Your task to perform on an android device: turn on bluetooth scan Image 0: 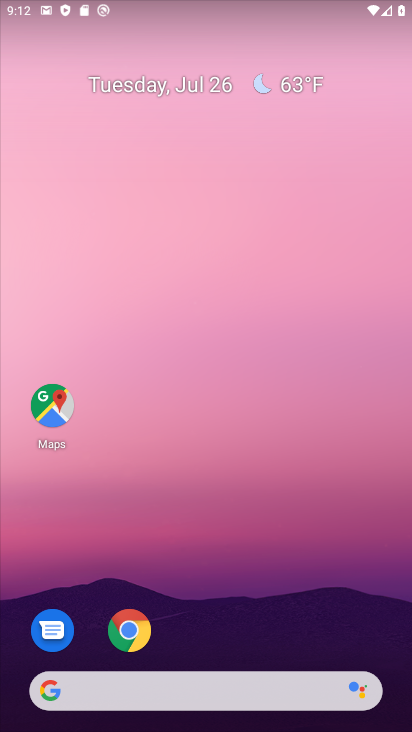
Step 0: drag from (211, 643) to (240, 32)
Your task to perform on an android device: turn on bluetooth scan Image 1: 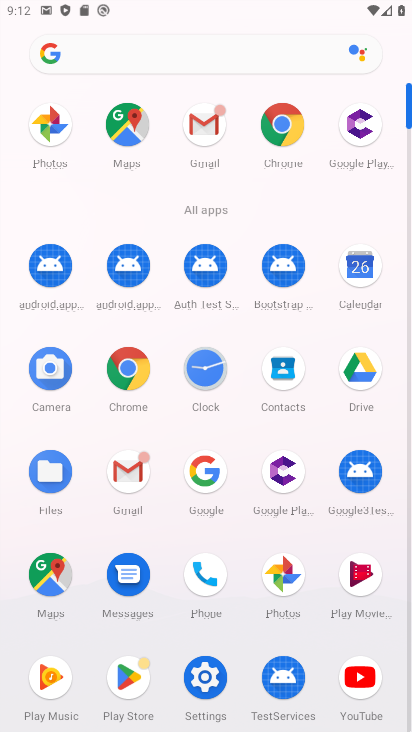
Step 1: click (202, 673)
Your task to perform on an android device: turn on bluetooth scan Image 2: 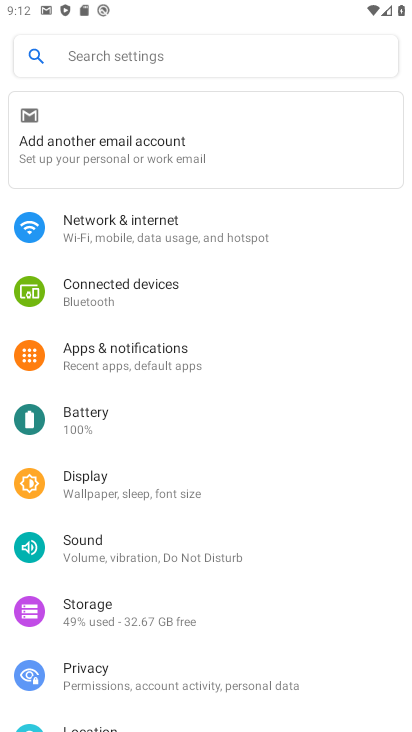
Step 2: drag from (157, 655) to (175, 275)
Your task to perform on an android device: turn on bluetooth scan Image 3: 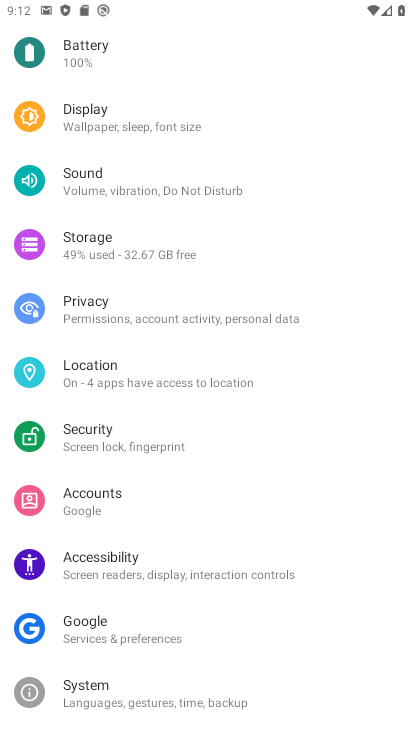
Step 3: click (129, 371)
Your task to perform on an android device: turn on bluetooth scan Image 4: 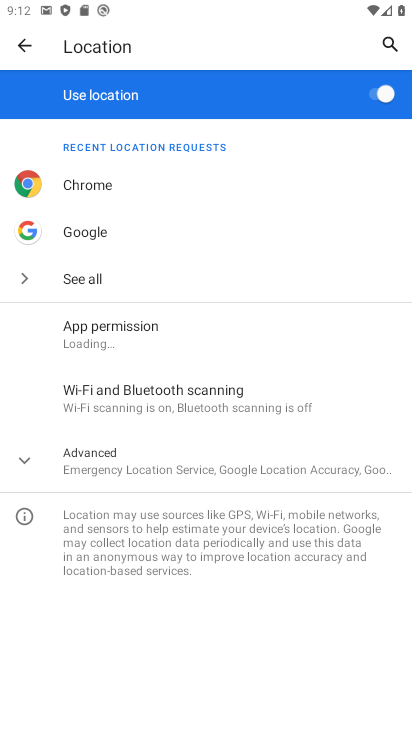
Step 4: click (191, 396)
Your task to perform on an android device: turn on bluetooth scan Image 5: 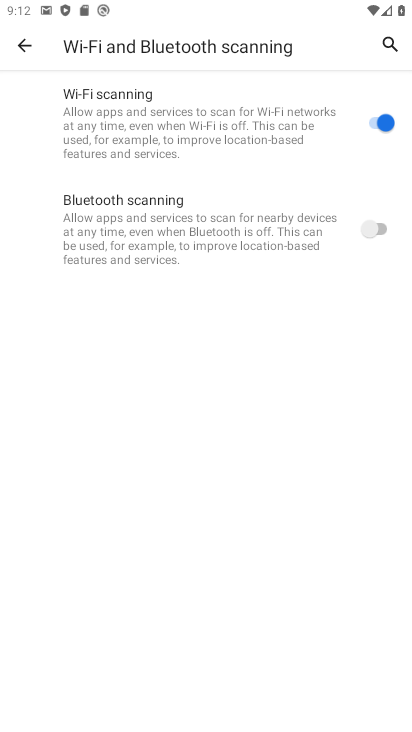
Step 5: click (381, 229)
Your task to perform on an android device: turn on bluetooth scan Image 6: 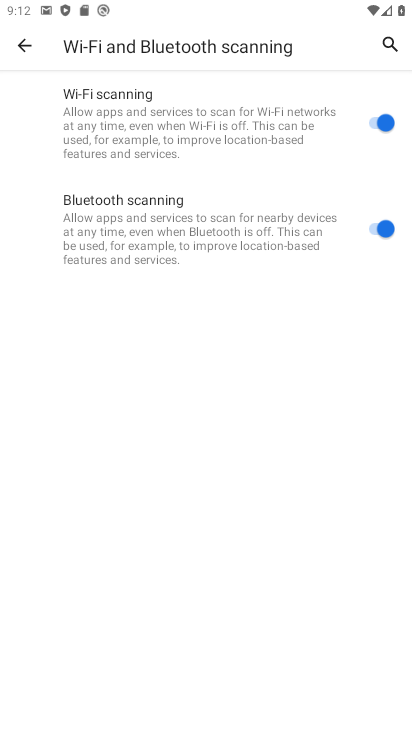
Step 6: task complete